Your task to perform on an android device: turn notification dots on Image 0: 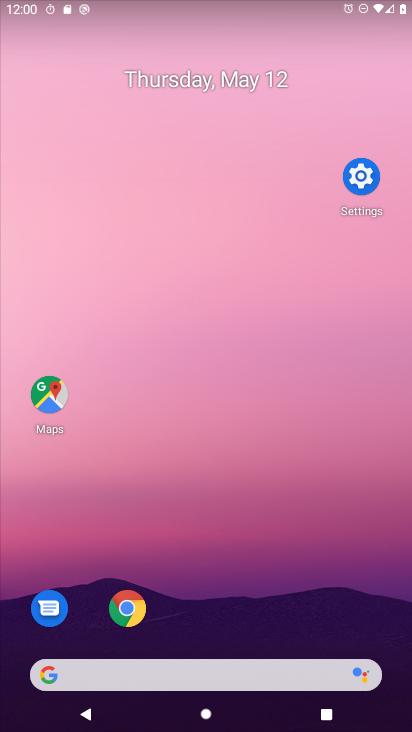
Step 0: drag from (144, 65) to (196, 105)
Your task to perform on an android device: turn notification dots on Image 1: 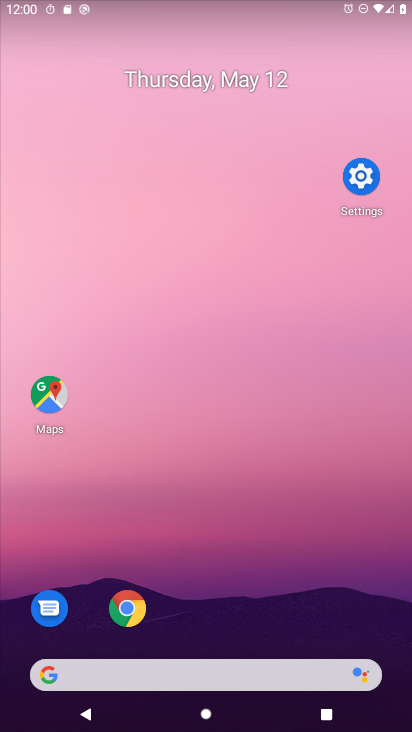
Step 1: drag from (231, 505) to (117, 13)
Your task to perform on an android device: turn notification dots on Image 2: 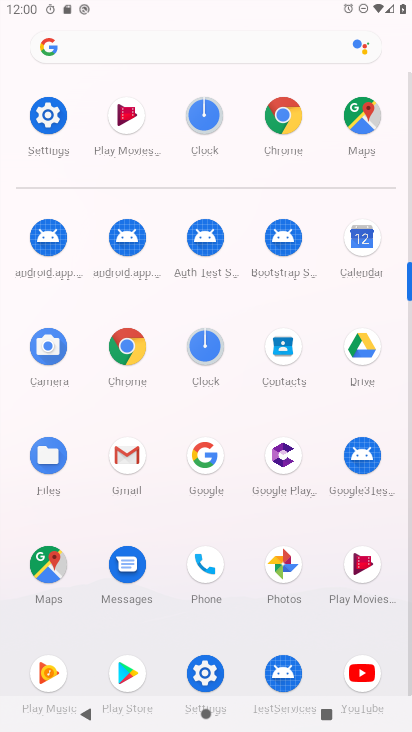
Step 2: drag from (196, 361) to (151, 15)
Your task to perform on an android device: turn notification dots on Image 3: 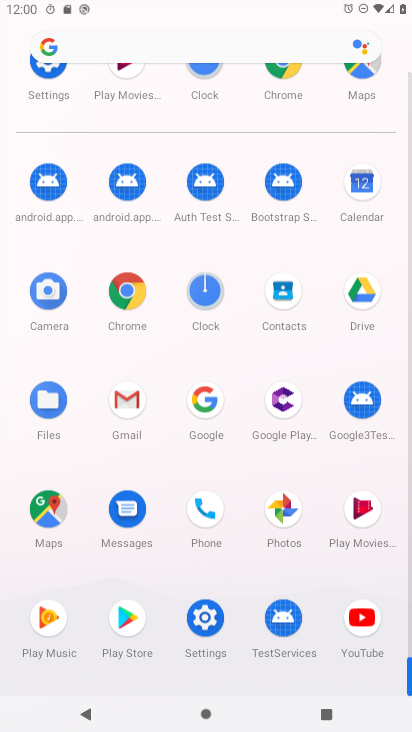
Step 3: drag from (327, 536) to (91, 121)
Your task to perform on an android device: turn notification dots on Image 4: 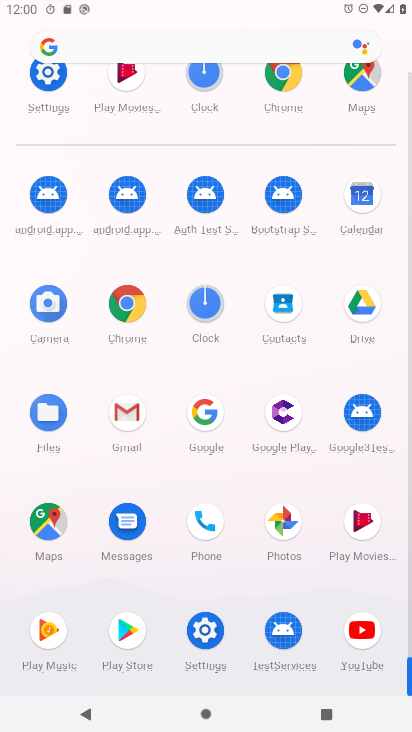
Step 4: click (48, 126)
Your task to perform on an android device: turn notification dots on Image 5: 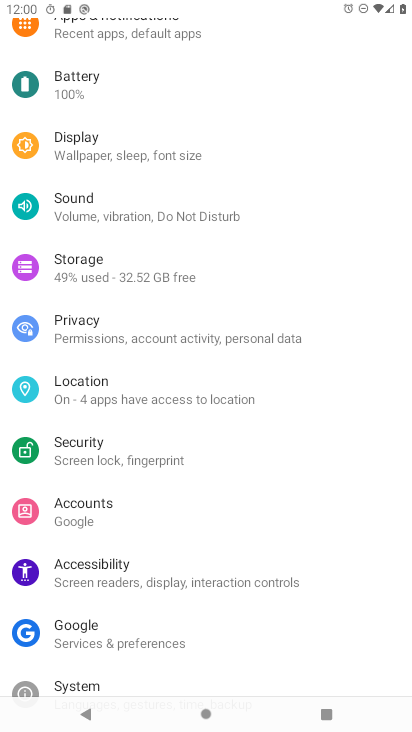
Step 5: drag from (114, 139) to (145, 420)
Your task to perform on an android device: turn notification dots on Image 6: 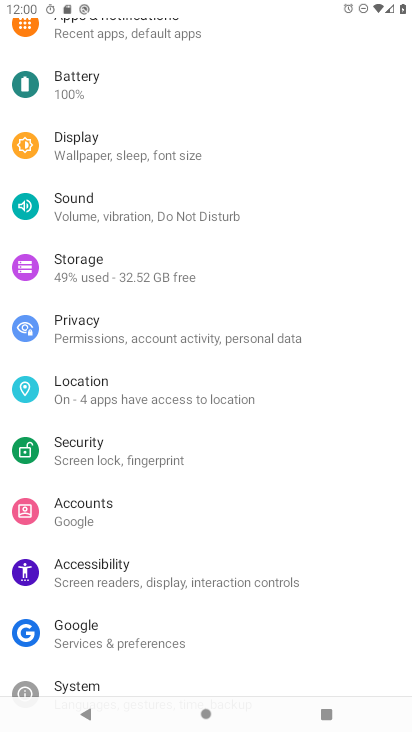
Step 6: drag from (123, 171) to (145, 421)
Your task to perform on an android device: turn notification dots on Image 7: 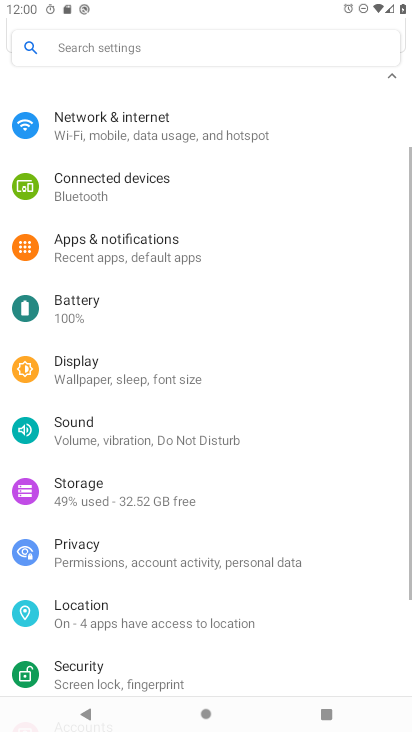
Step 7: drag from (54, 105) to (117, 370)
Your task to perform on an android device: turn notification dots on Image 8: 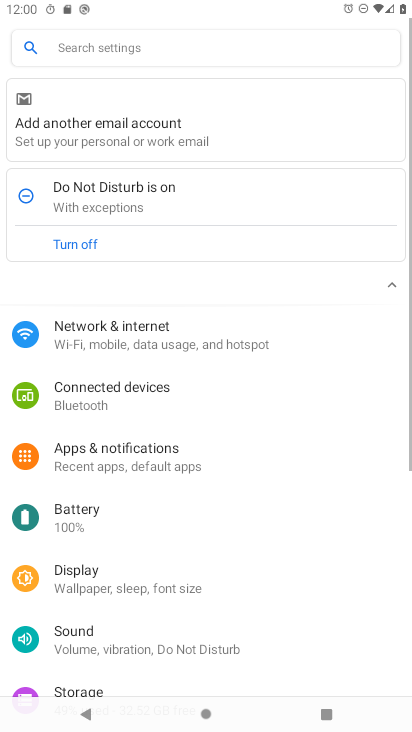
Step 8: drag from (75, 147) to (209, 451)
Your task to perform on an android device: turn notification dots on Image 9: 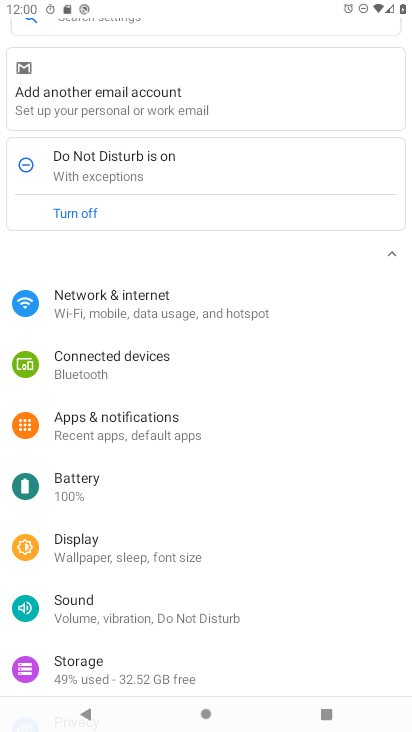
Step 9: click (112, 415)
Your task to perform on an android device: turn notification dots on Image 10: 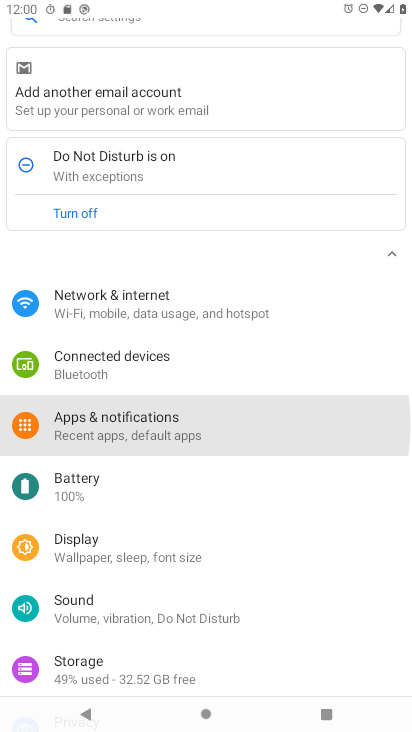
Step 10: click (110, 415)
Your task to perform on an android device: turn notification dots on Image 11: 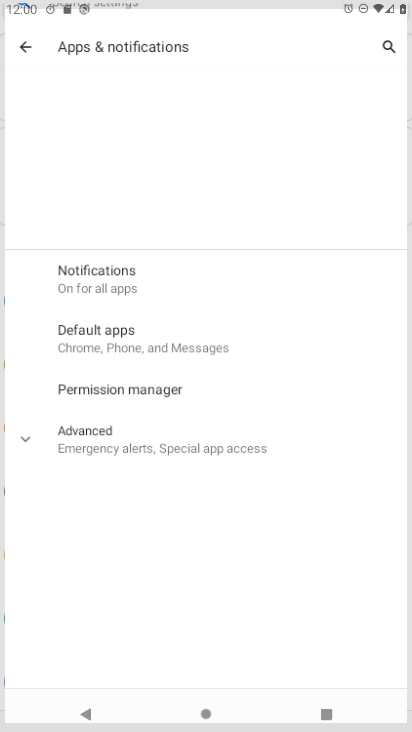
Step 11: click (108, 419)
Your task to perform on an android device: turn notification dots on Image 12: 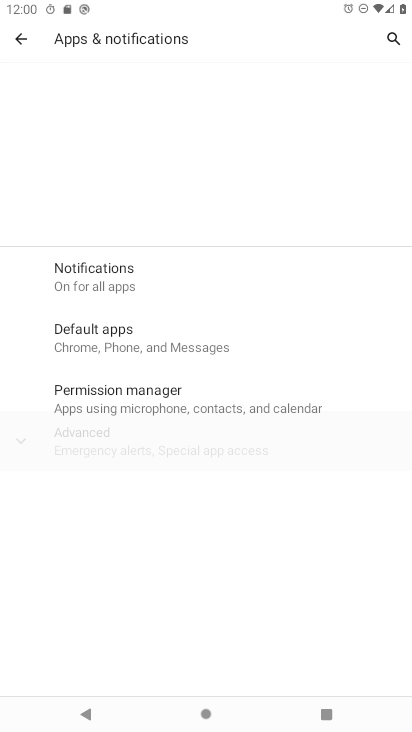
Step 12: click (108, 419)
Your task to perform on an android device: turn notification dots on Image 13: 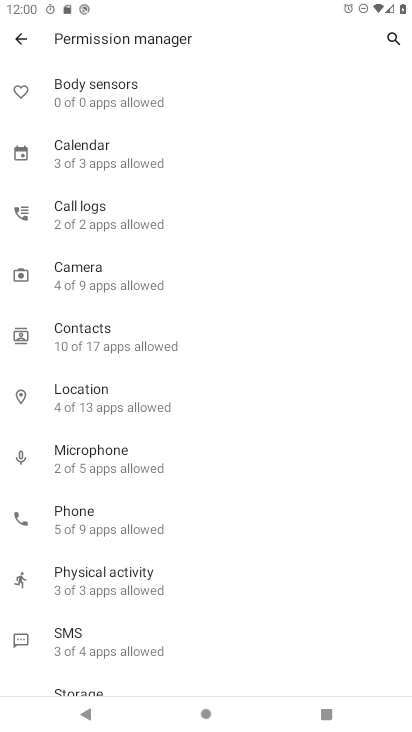
Step 13: click (19, 31)
Your task to perform on an android device: turn notification dots on Image 14: 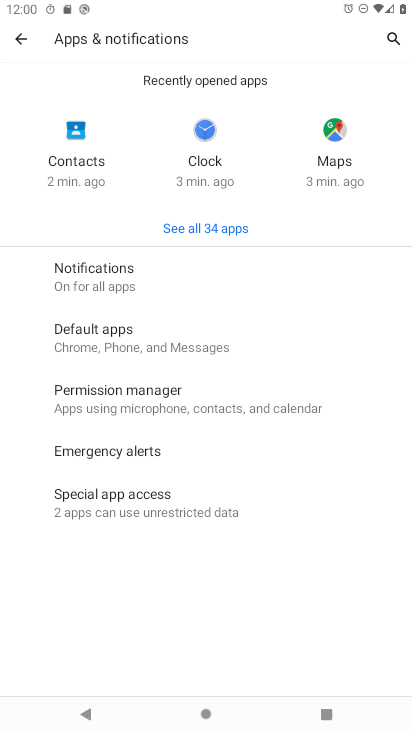
Step 14: click (88, 281)
Your task to perform on an android device: turn notification dots on Image 15: 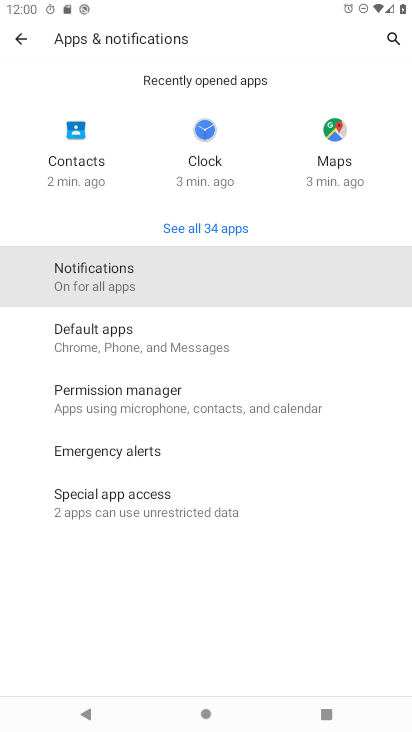
Step 15: click (88, 281)
Your task to perform on an android device: turn notification dots on Image 16: 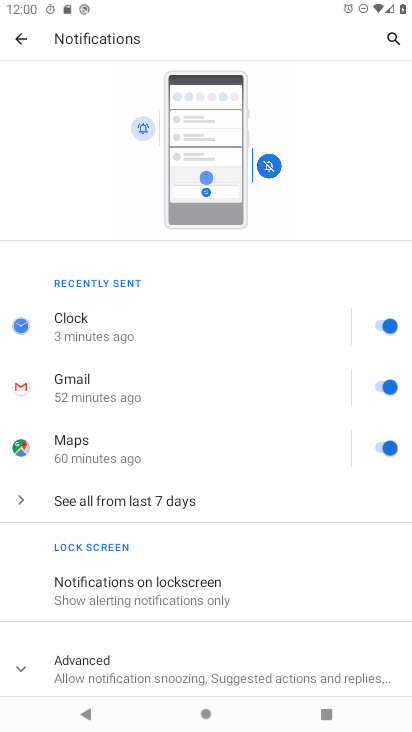
Step 16: drag from (207, 622) to (150, 28)
Your task to perform on an android device: turn notification dots on Image 17: 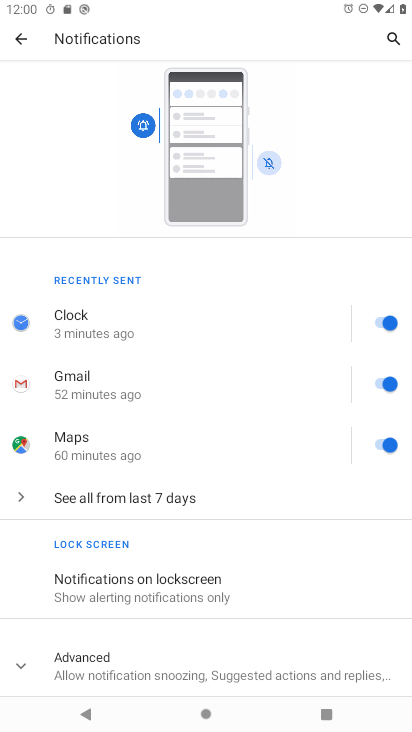
Step 17: click (60, 666)
Your task to perform on an android device: turn notification dots on Image 18: 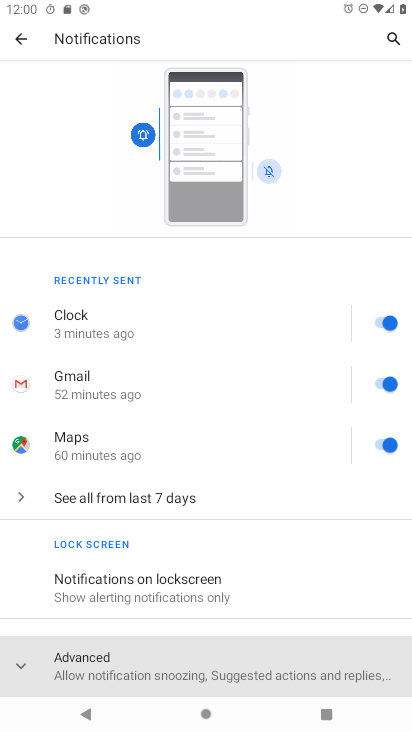
Step 18: click (67, 659)
Your task to perform on an android device: turn notification dots on Image 19: 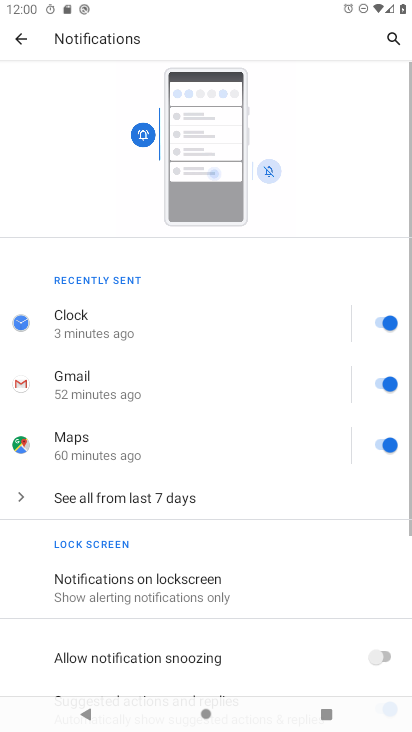
Step 19: click (67, 659)
Your task to perform on an android device: turn notification dots on Image 20: 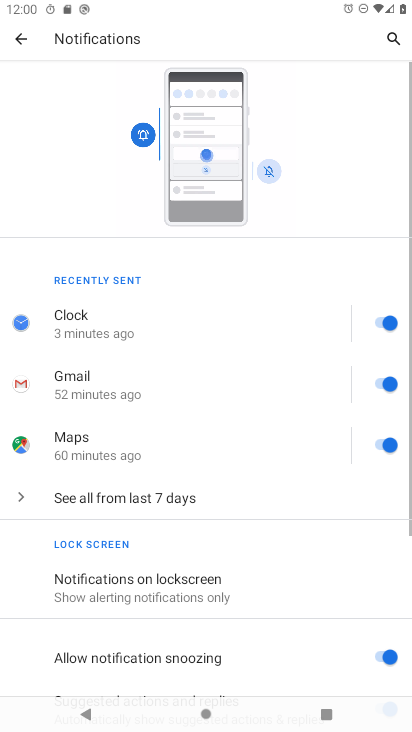
Step 20: drag from (221, 566) to (66, 125)
Your task to perform on an android device: turn notification dots on Image 21: 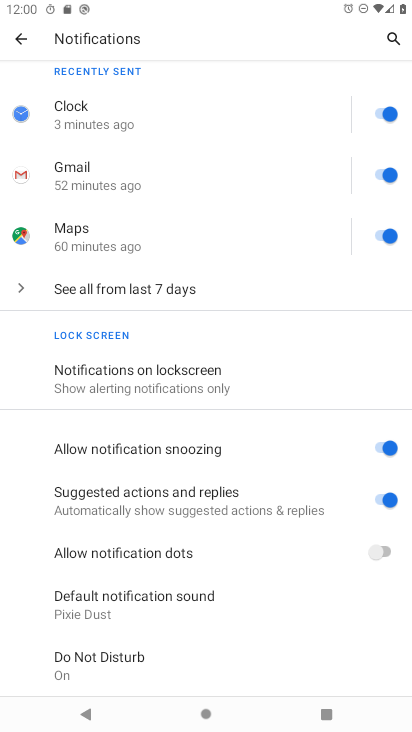
Step 21: click (380, 550)
Your task to perform on an android device: turn notification dots on Image 22: 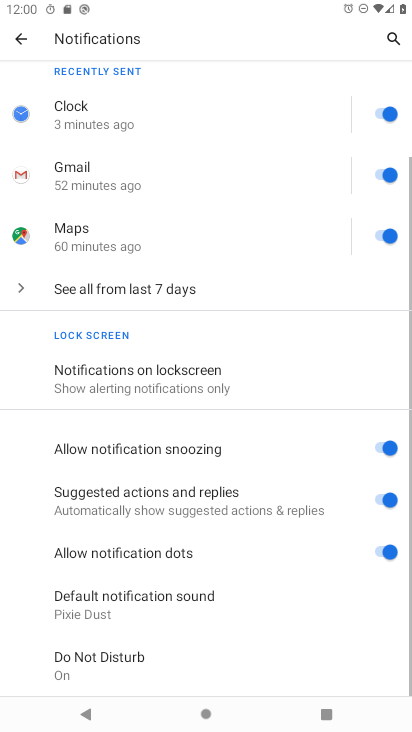
Step 22: task complete